Your task to perform on an android device: open wifi settings Image 0: 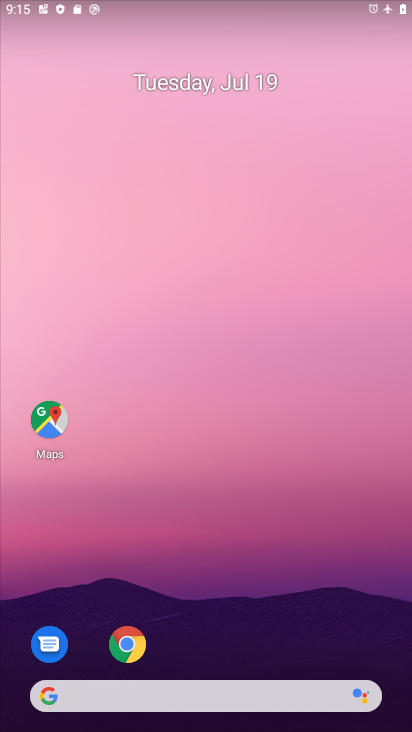
Step 0: drag from (212, 660) to (216, 42)
Your task to perform on an android device: open wifi settings Image 1: 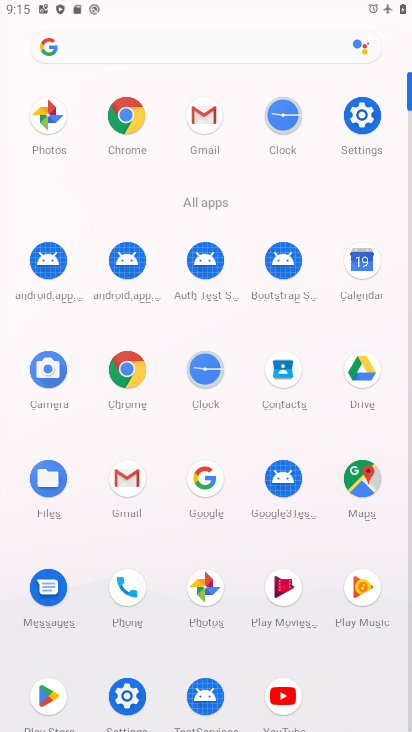
Step 1: click (353, 113)
Your task to perform on an android device: open wifi settings Image 2: 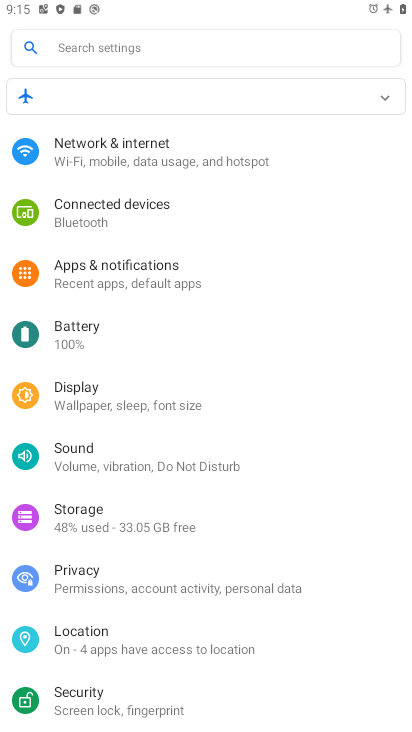
Step 2: click (178, 154)
Your task to perform on an android device: open wifi settings Image 3: 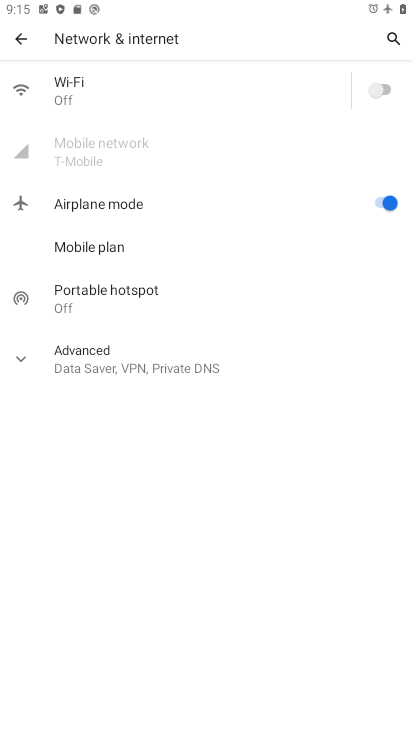
Step 3: click (68, 92)
Your task to perform on an android device: open wifi settings Image 4: 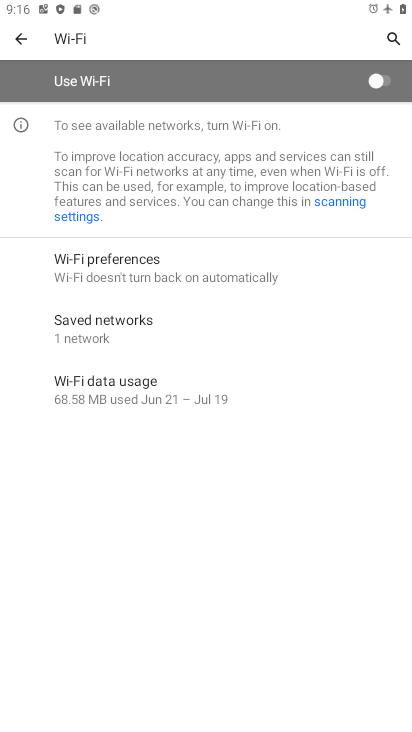
Step 4: task complete